Your task to perform on an android device: Open my contact list Image 0: 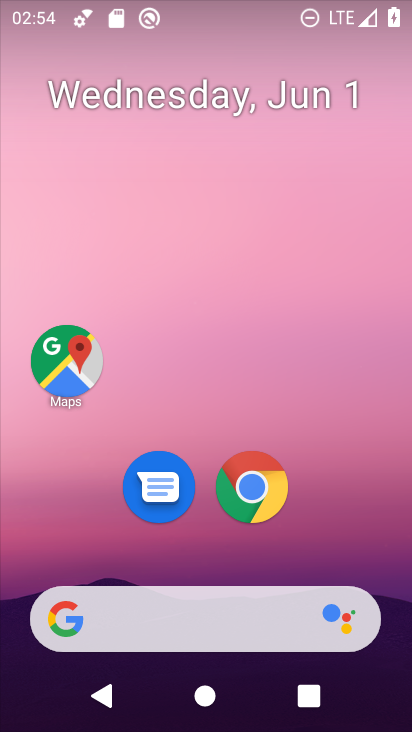
Step 0: drag from (245, 542) to (216, 186)
Your task to perform on an android device: Open my contact list Image 1: 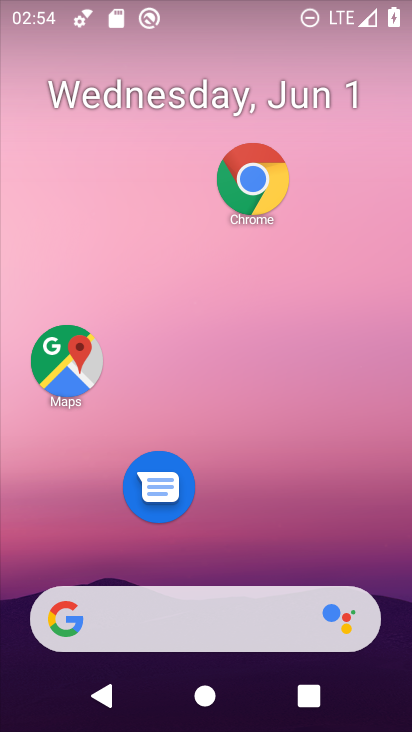
Step 1: drag from (249, 555) to (198, 209)
Your task to perform on an android device: Open my contact list Image 2: 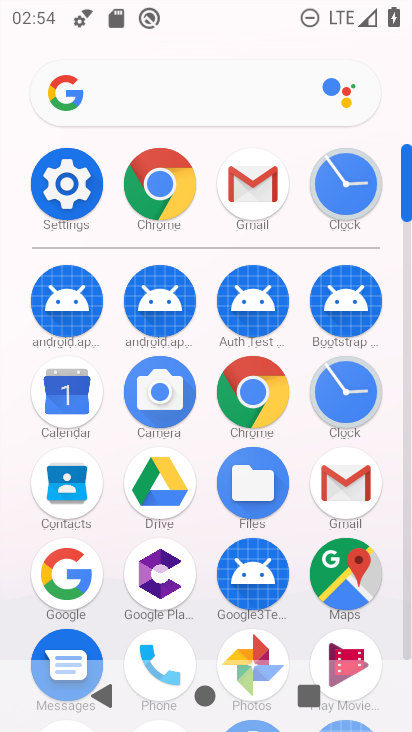
Step 2: click (150, 637)
Your task to perform on an android device: Open my contact list Image 3: 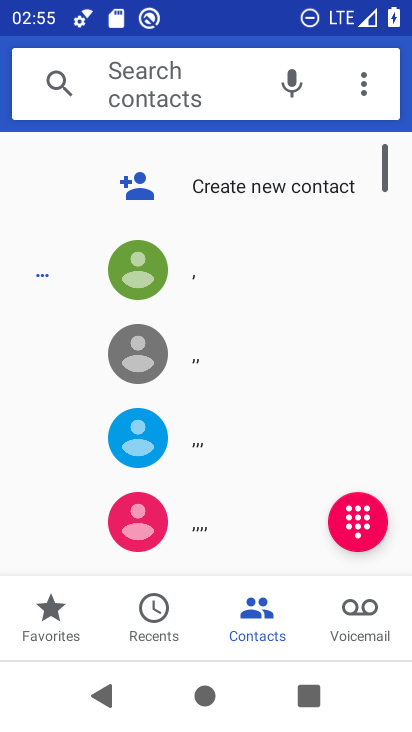
Step 3: task complete